Your task to perform on an android device: turn on priority inbox in the gmail app Image 0: 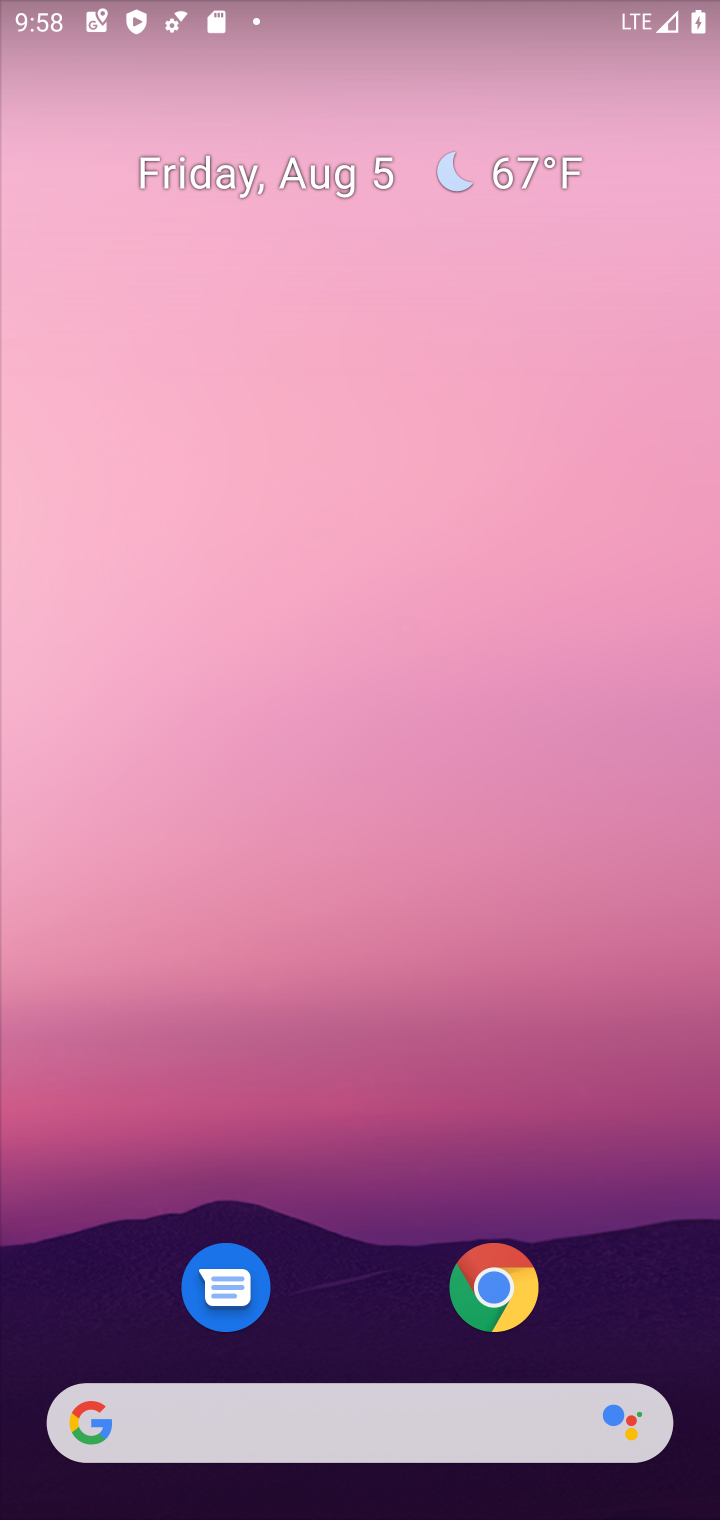
Step 0: drag from (346, 1198) to (339, 162)
Your task to perform on an android device: turn on priority inbox in the gmail app Image 1: 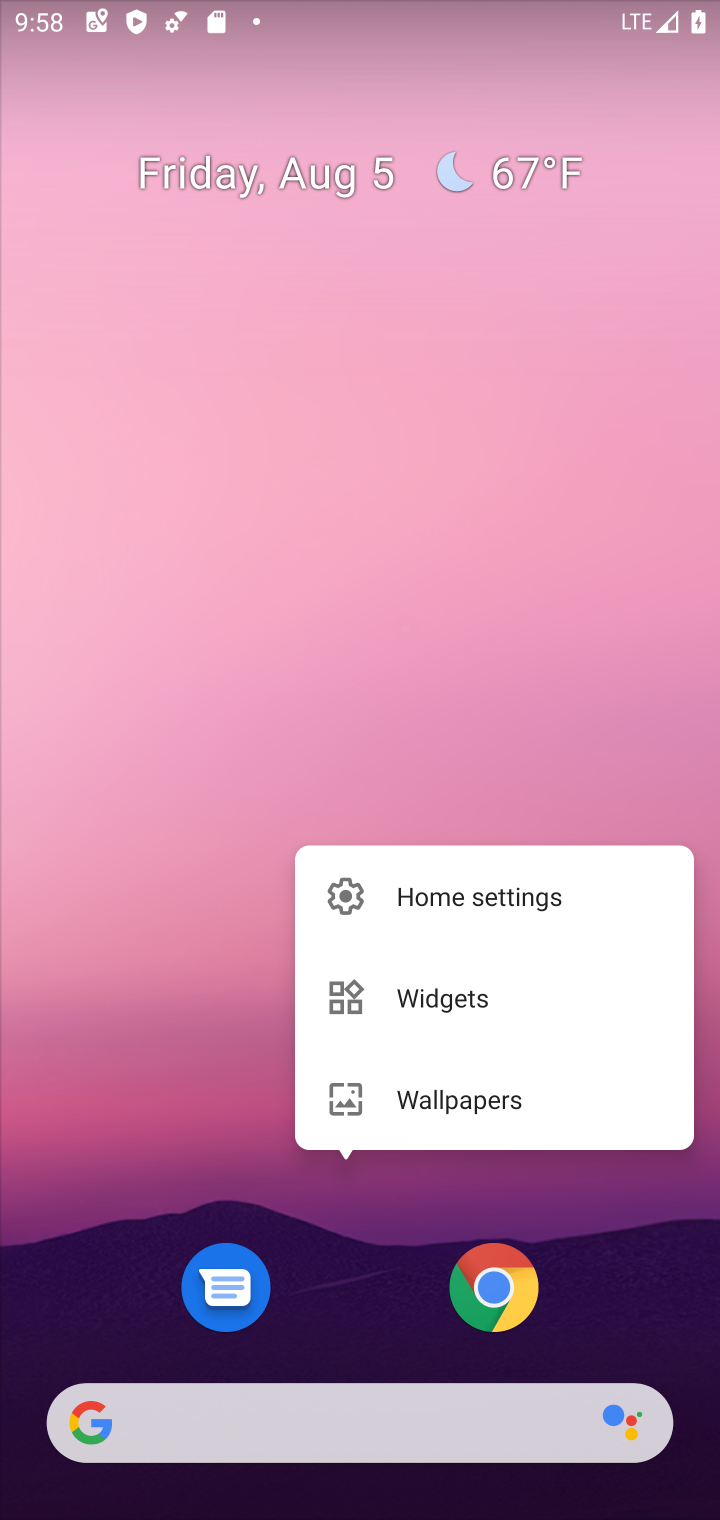
Step 1: click (425, 575)
Your task to perform on an android device: turn on priority inbox in the gmail app Image 2: 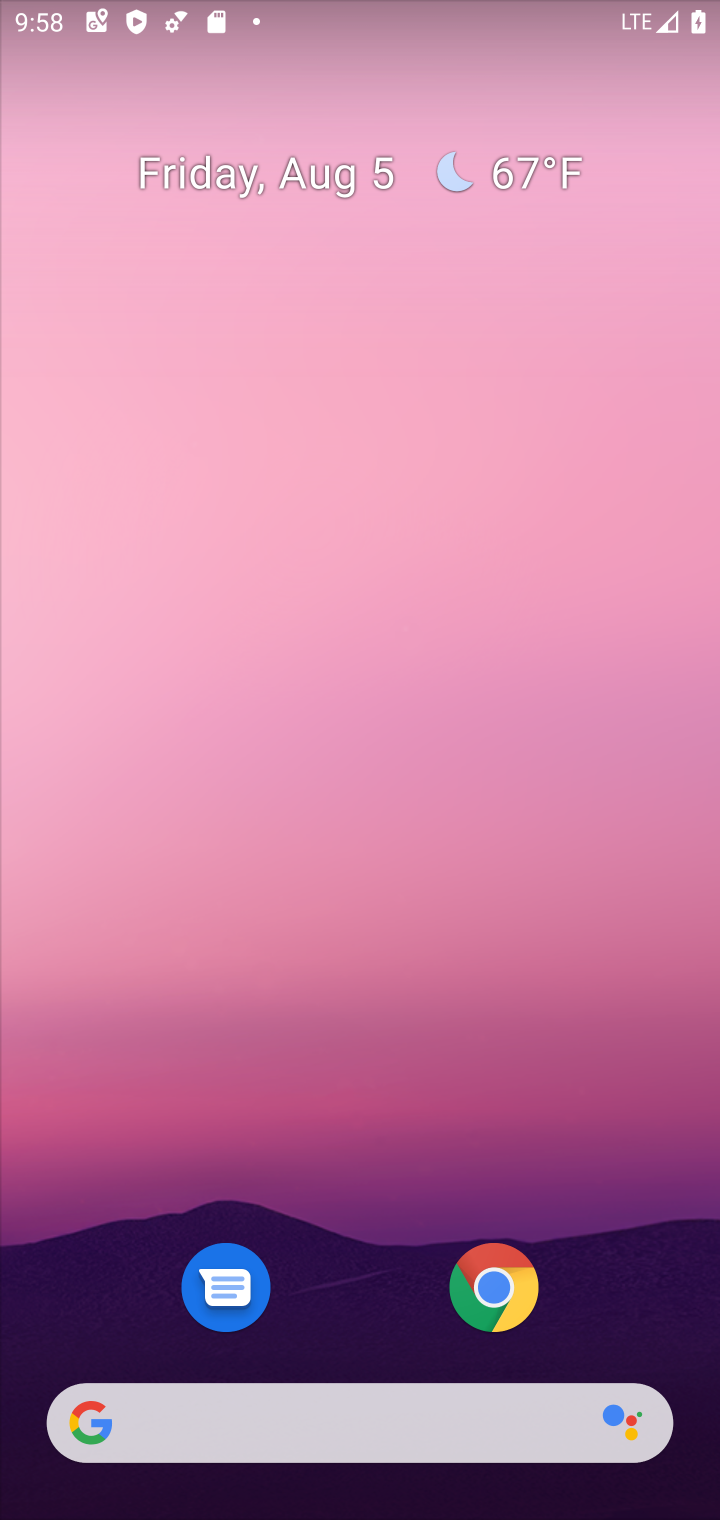
Step 2: drag from (365, 1336) to (338, 206)
Your task to perform on an android device: turn on priority inbox in the gmail app Image 3: 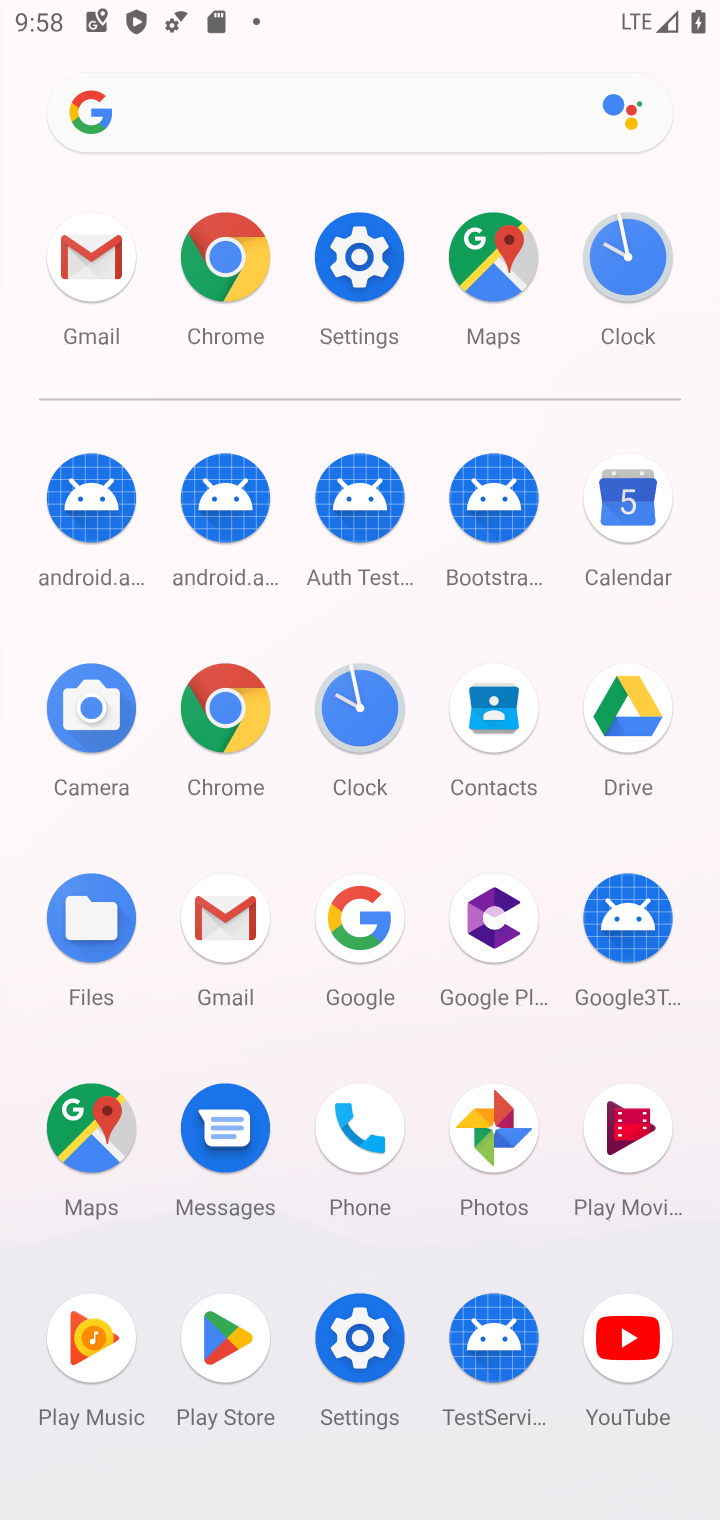
Step 3: click (221, 916)
Your task to perform on an android device: turn on priority inbox in the gmail app Image 4: 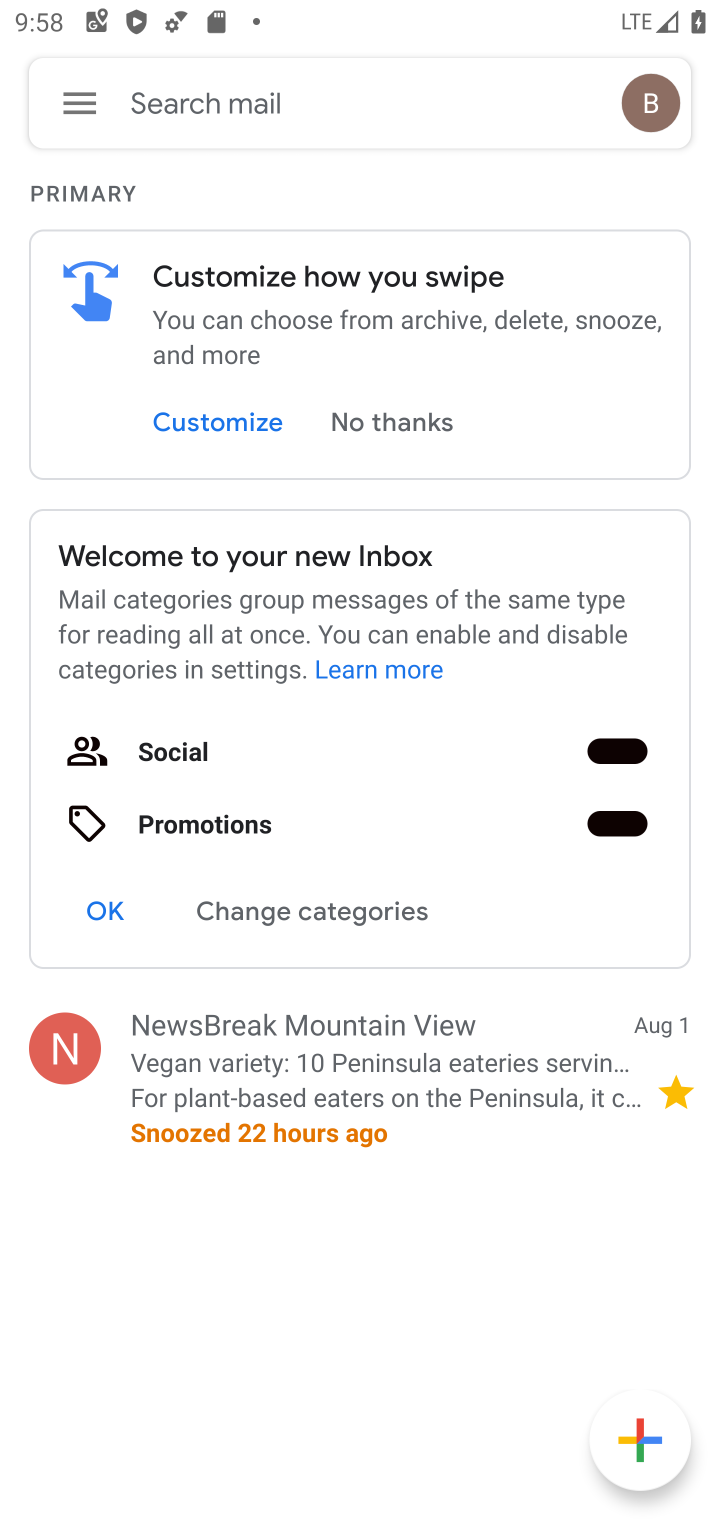
Step 4: click (81, 101)
Your task to perform on an android device: turn on priority inbox in the gmail app Image 5: 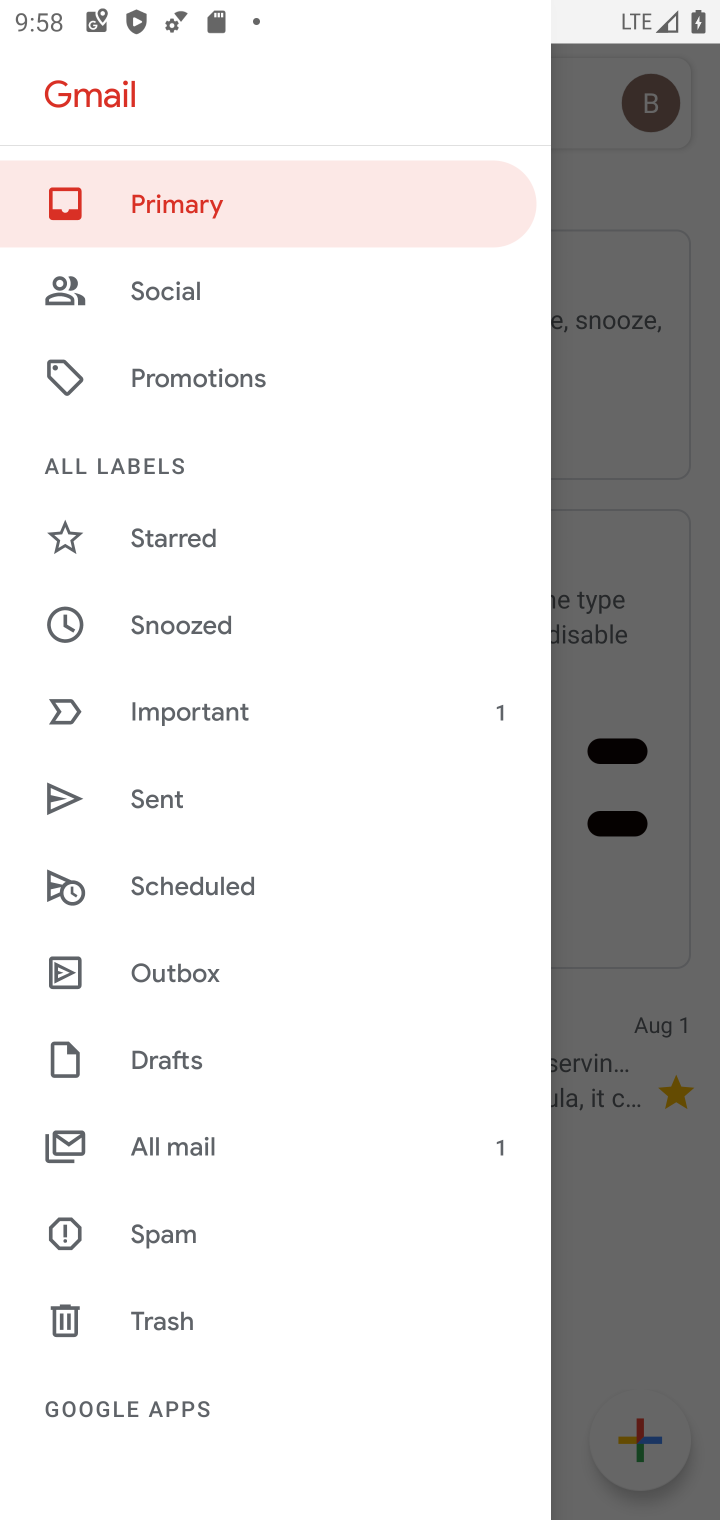
Step 5: drag from (213, 1341) to (247, 680)
Your task to perform on an android device: turn on priority inbox in the gmail app Image 6: 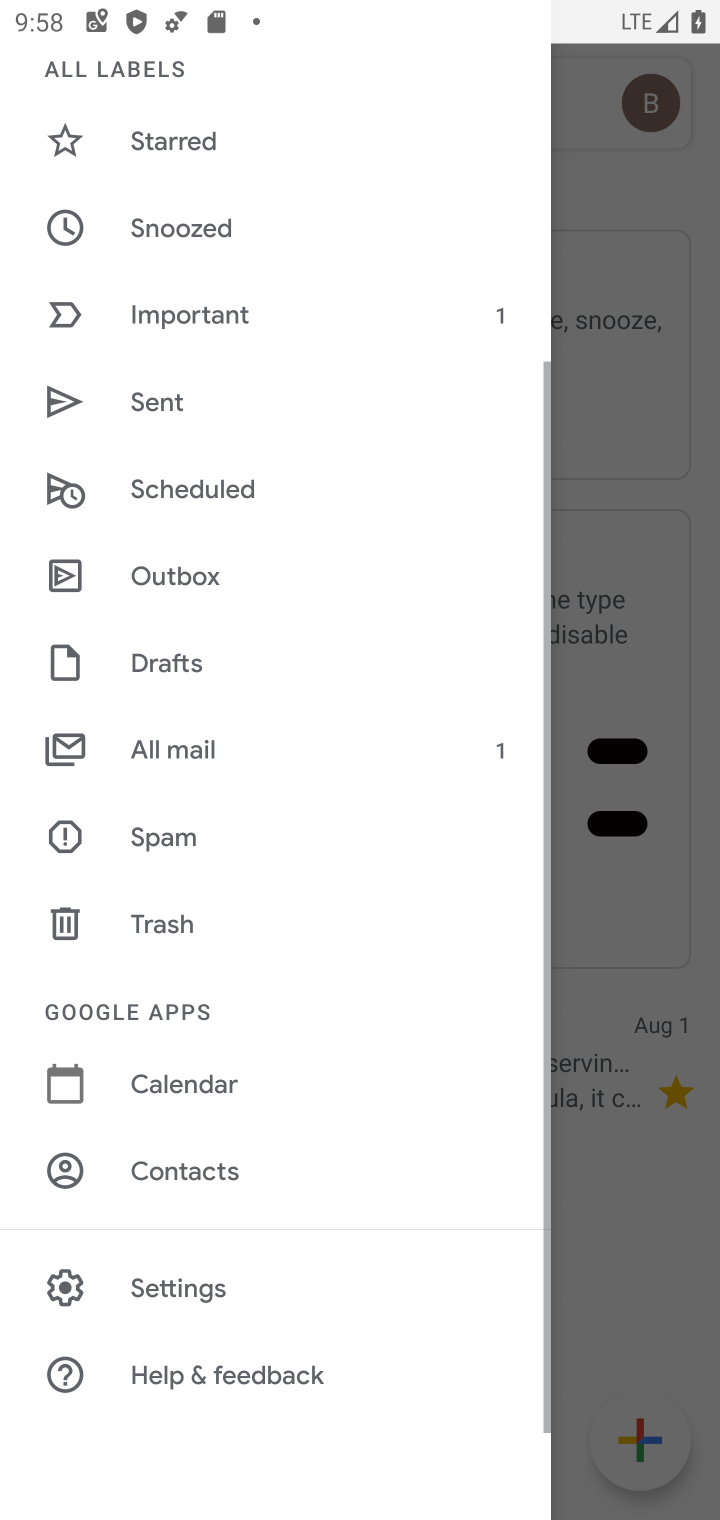
Step 6: click (188, 1284)
Your task to perform on an android device: turn on priority inbox in the gmail app Image 7: 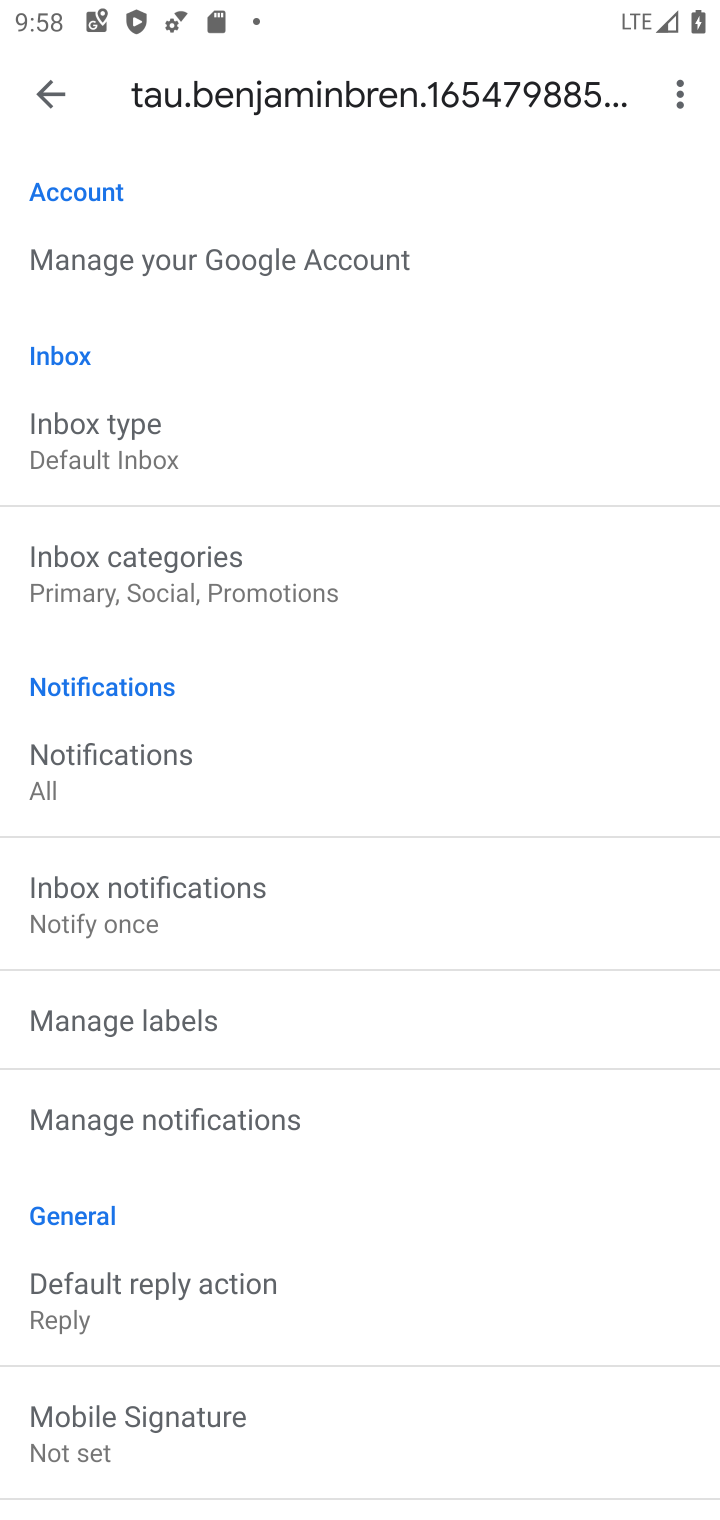
Step 7: click (123, 449)
Your task to perform on an android device: turn on priority inbox in the gmail app Image 8: 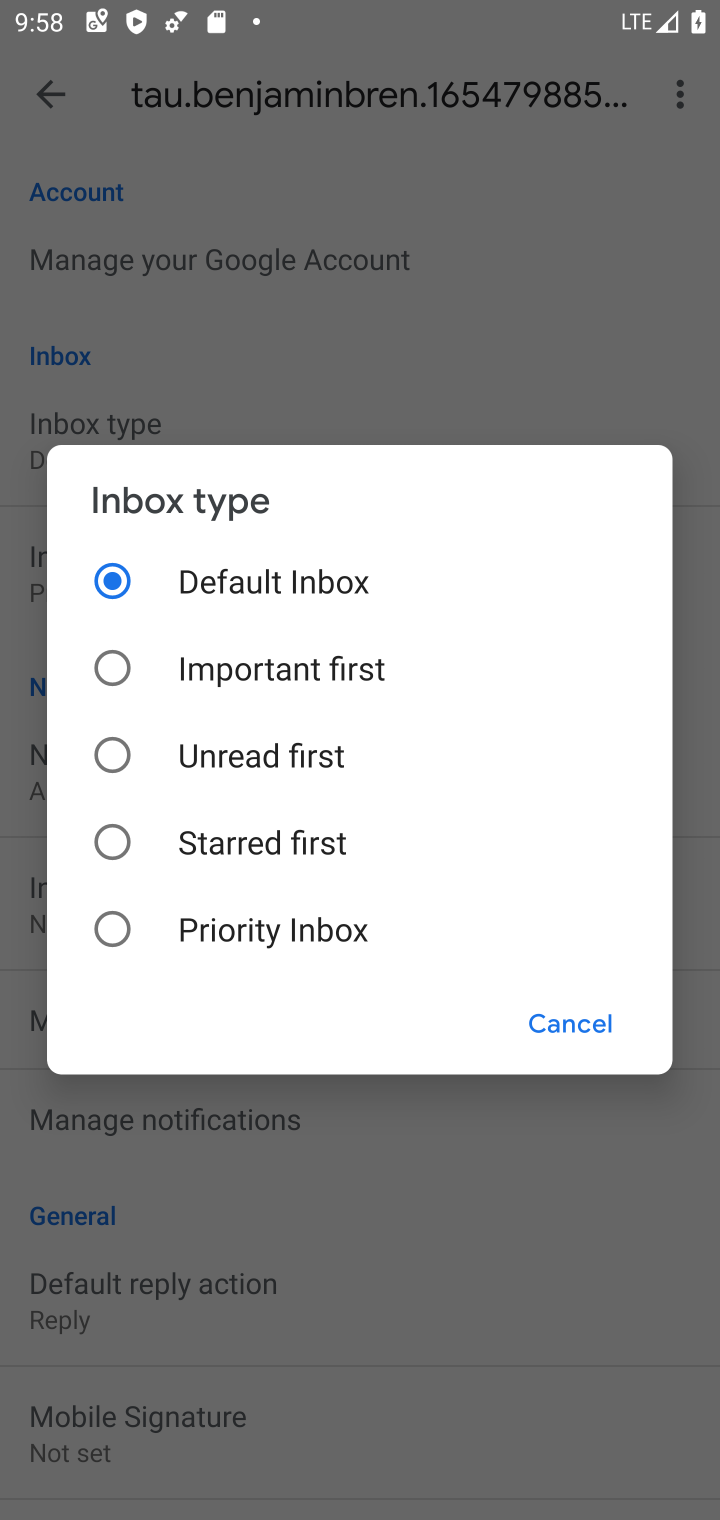
Step 8: click (114, 932)
Your task to perform on an android device: turn on priority inbox in the gmail app Image 9: 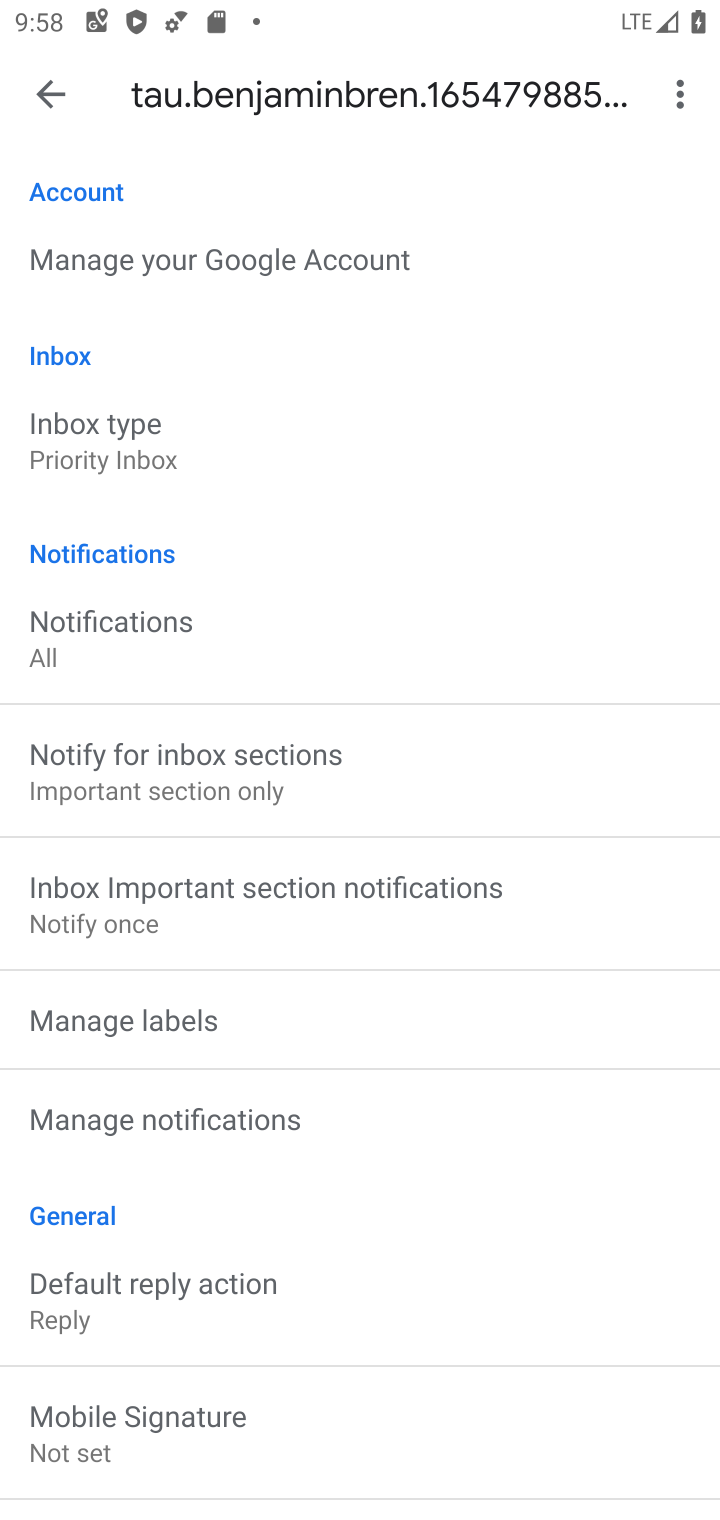
Step 9: task complete